Your task to perform on an android device: Go to Google maps Image 0: 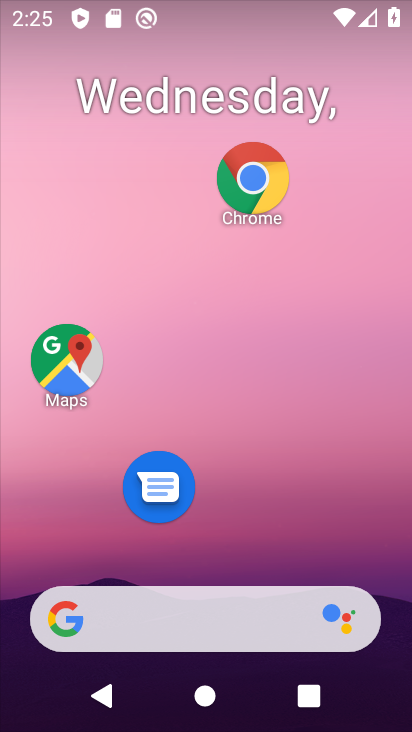
Step 0: drag from (255, 474) to (335, 1)
Your task to perform on an android device: Go to Google maps Image 1: 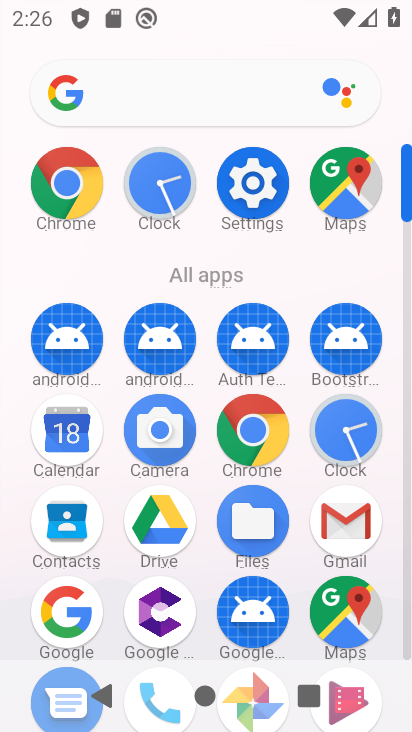
Step 1: click (335, 200)
Your task to perform on an android device: Go to Google maps Image 2: 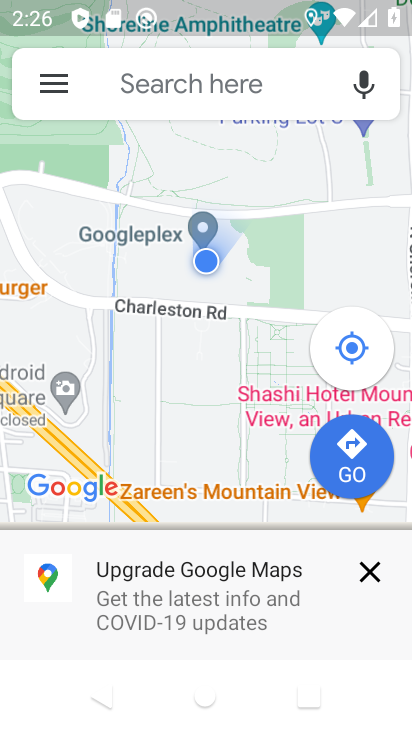
Step 2: task complete